Your task to perform on an android device: Open Google Chrome and open the bookmarks view Image 0: 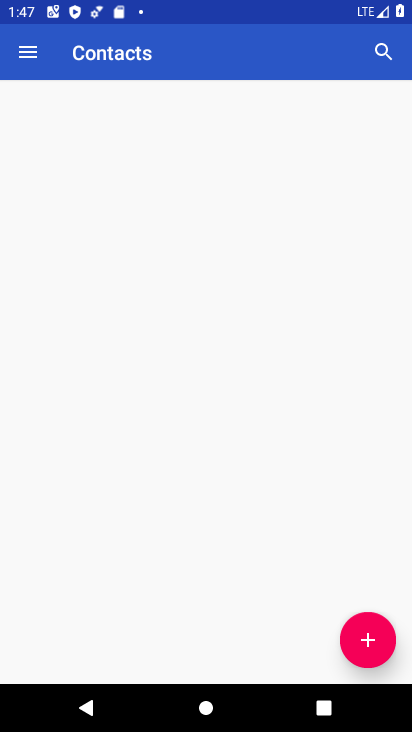
Step 0: drag from (211, 601) to (226, 0)
Your task to perform on an android device: Open Google Chrome and open the bookmarks view Image 1: 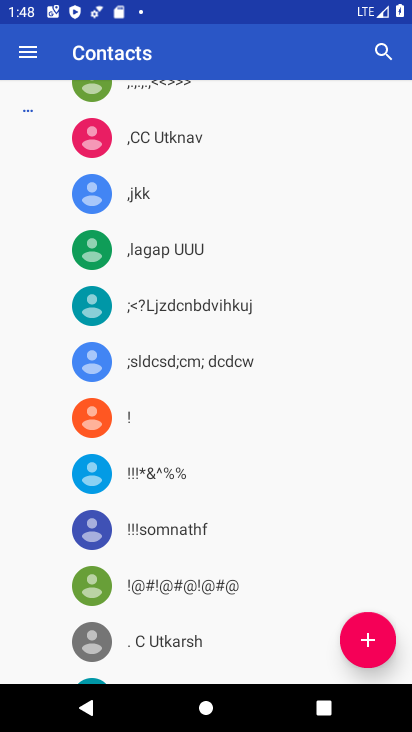
Step 1: press home button
Your task to perform on an android device: Open Google Chrome and open the bookmarks view Image 2: 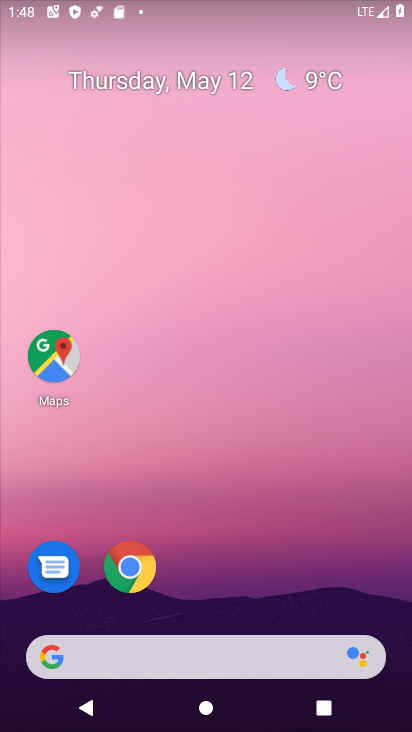
Step 2: click (159, 263)
Your task to perform on an android device: Open Google Chrome and open the bookmarks view Image 3: 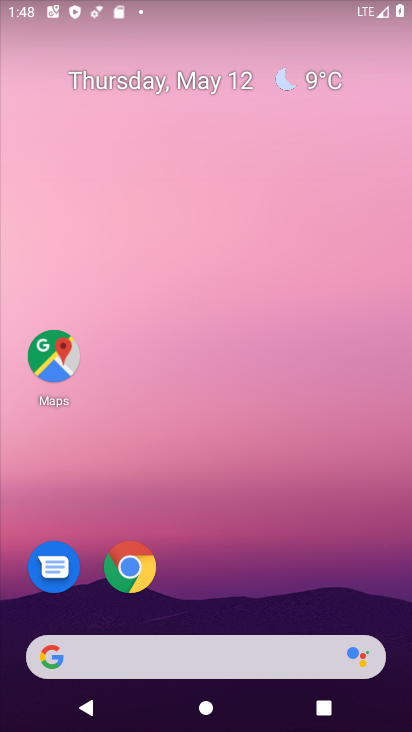
Step 3: drag from (234, 592) to (234, 58)
Your task to perform on an android device: Open Google Chrome and open the bookmarks view Image 4: 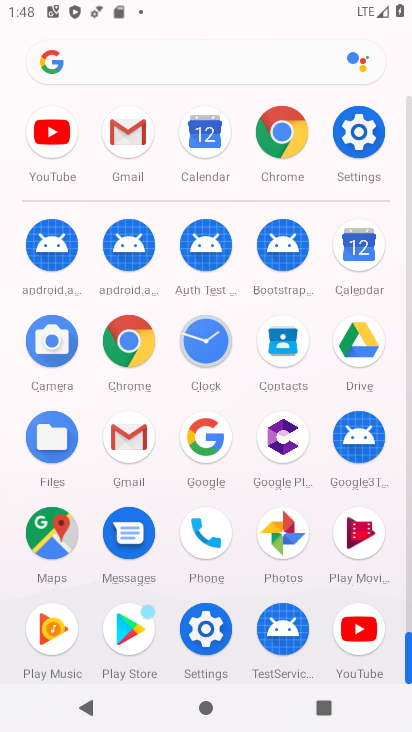
Step 4: click (271, 163)
Your task to perform on an android device: Open Google Chrome and open the bookmarks view Image 5: 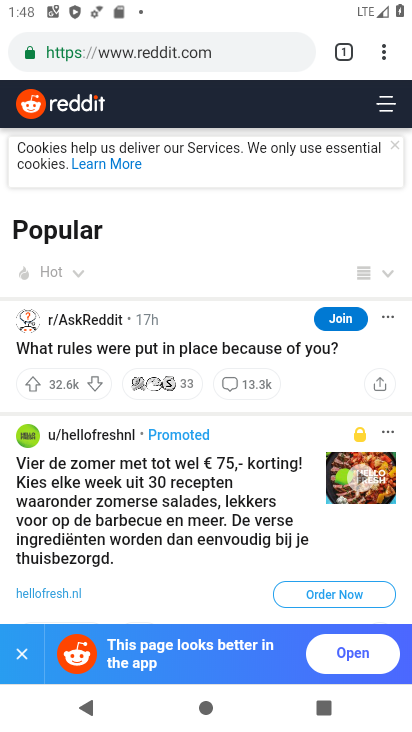
Step 5: click (383, 63)
Your task to perform on an android device: Open Google Chrome and open the bookmarks view Image 6: 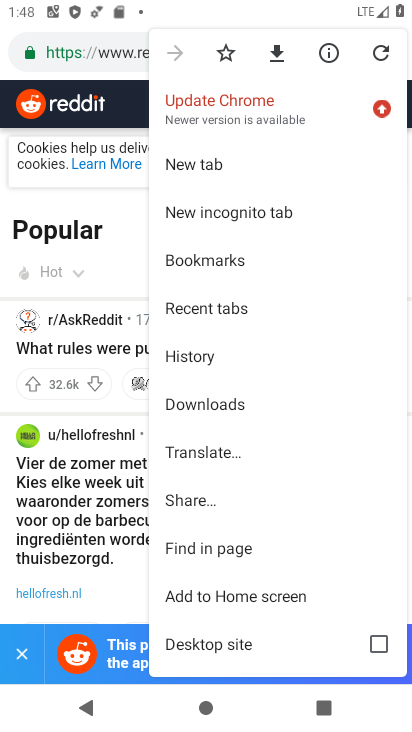
Step 6: click (221, 262)
Your task to perform on an android device: Open Google Chrome and open the bookmarks view Image 7: 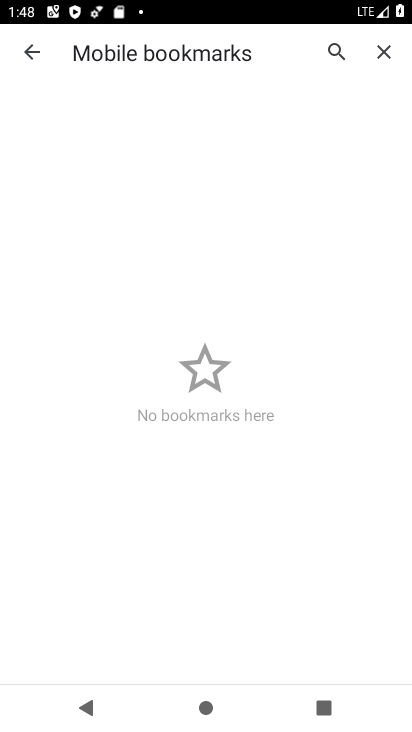
Step 7: task complete